Your task to perform on an android device: find snoozed emails in the gmail app Image 0: 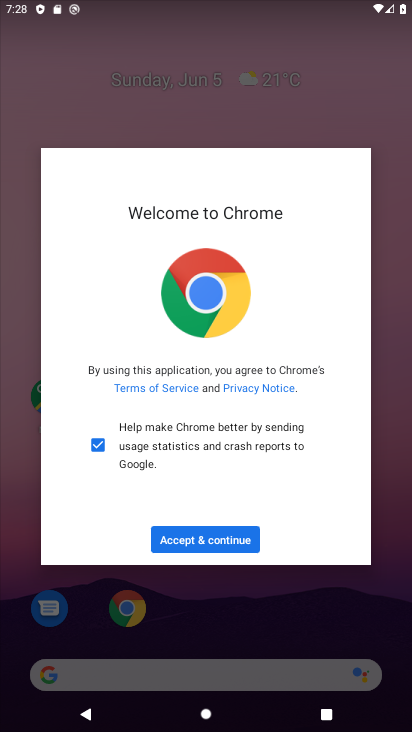
Step 0: press home button
Your task to perform on an android device: find snoozed emails in the gmail app Image 1: 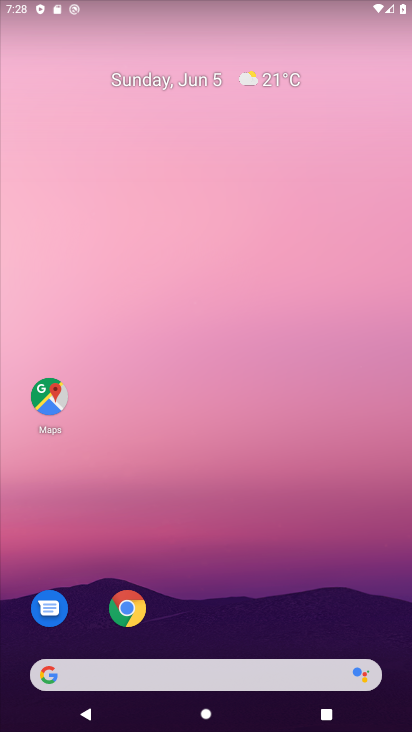
Step 1: drag from (344, 613) to (290, 221)
Your task to perform on an android device: find snoozed emails in the gmail app Image 2: 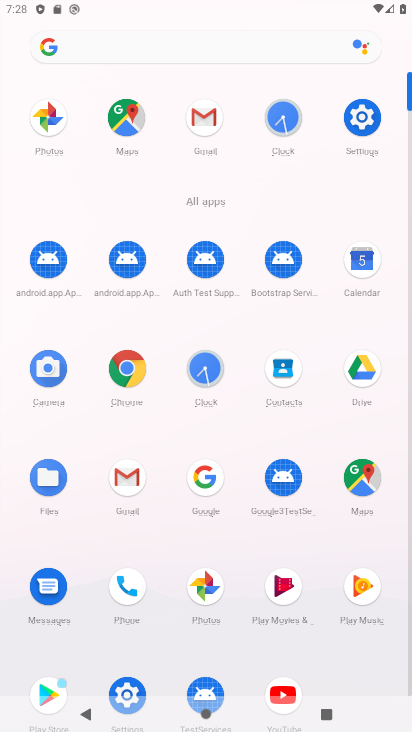
Step 2: click (108, 499)
Your task to perform on an android device: find snoozed emails in the gmail app Image 3: 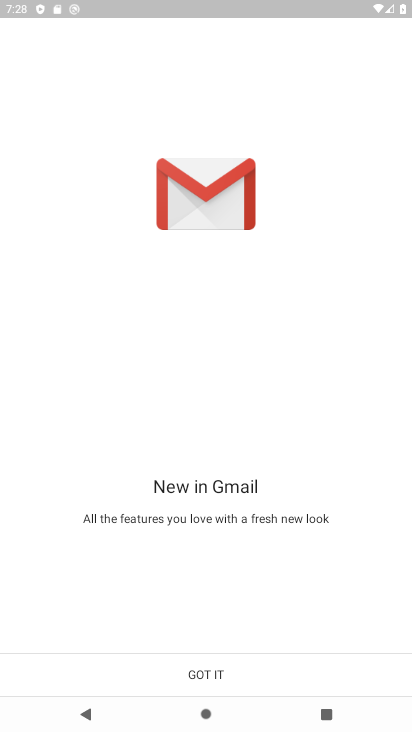
Step 3: click (230, 678)
Your task to perform on an android device: find snoozed emails in the gmail app Image 4: 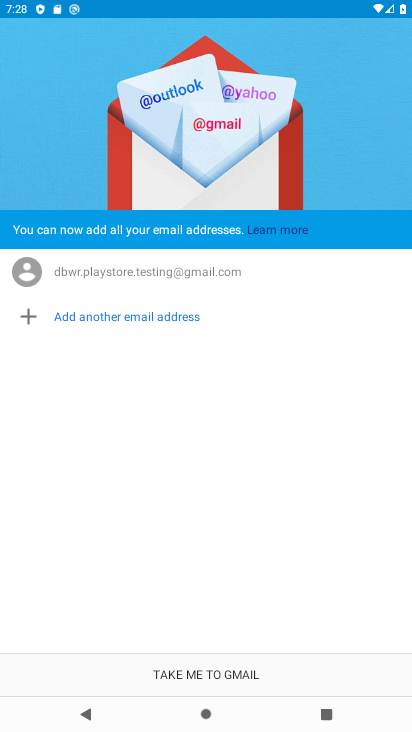
Step 4: click (218, 674)
Your task to perform on an android device: find snoozed emails in the gmail app Image 5: 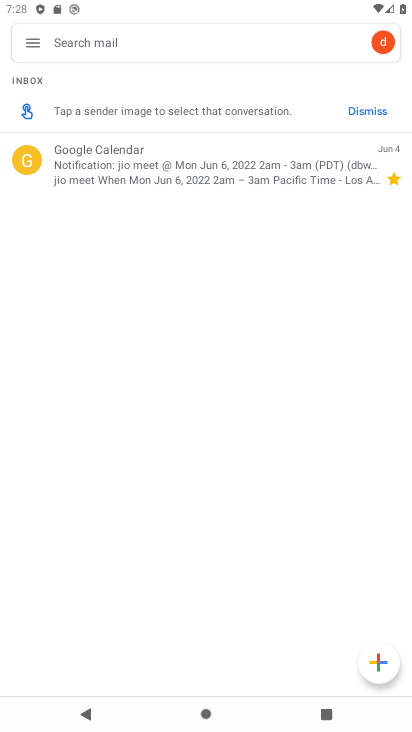
Step 5: click (26, 37)
Your task to perform on an android device: find snoozed emails in the gmail app Image 6: 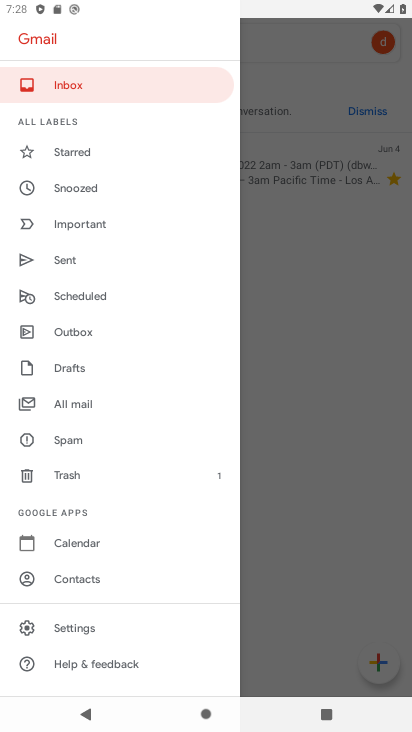
Step 6: click (100, 181)
Your task to perform on an android device: find snoozed emails in the gmail app Image 7: 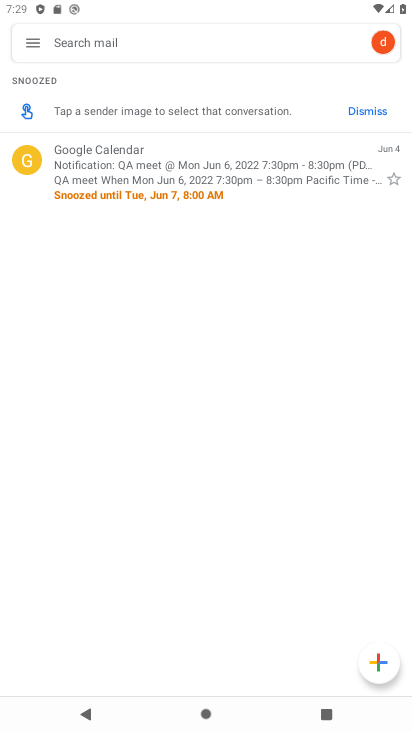
Step 7: task complete